Your task to perform on an android device: Find coffee shops on Maps Image 0: 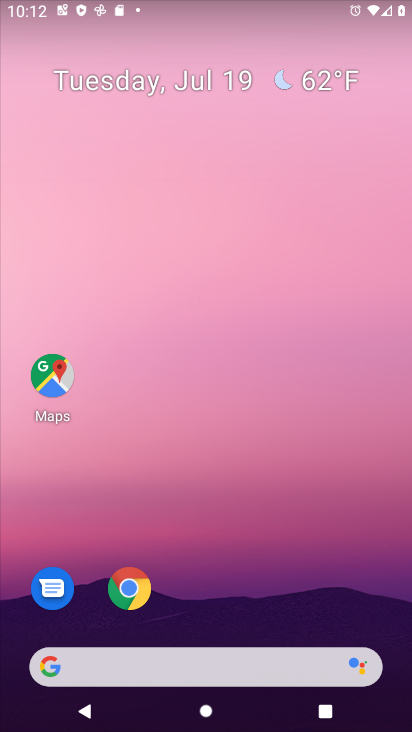
Step 0: drag from (260, 588) to (315, 35)
Your task to perform on an android device: Find coffee shops on Maps Image 1: 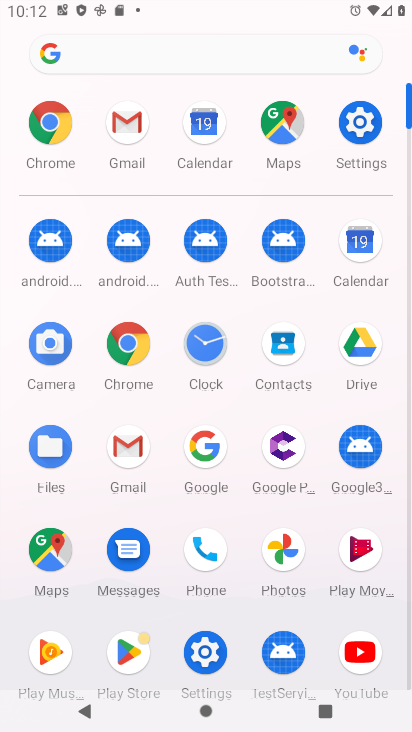
Step 1: click (50, 543)
Your task to perform on an android device: Find coffee shops on Maps Image 2: 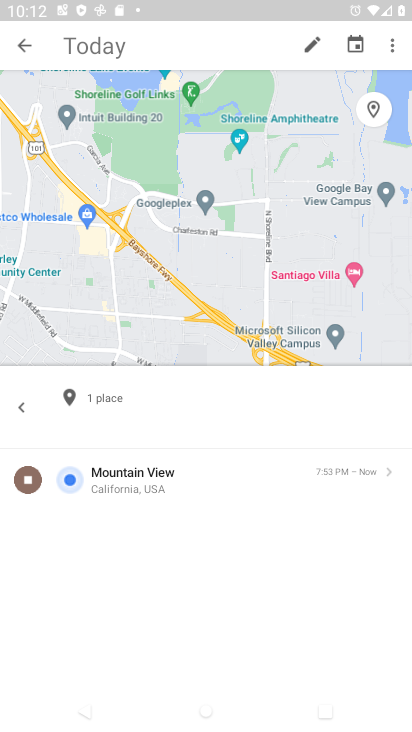
Step 2: click (25, 53)
Your task to perform on an android device: Find coffee shops on Maps Image 3: 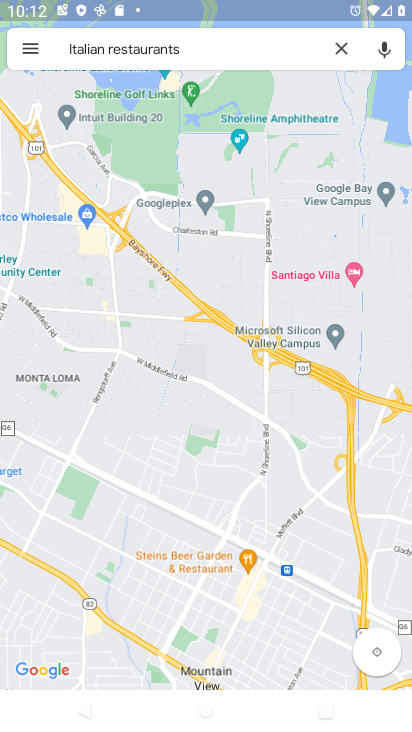
Step 3: click (337, 55)
Your task to perform on an android device: Find coffee shops on Maps Image 4: 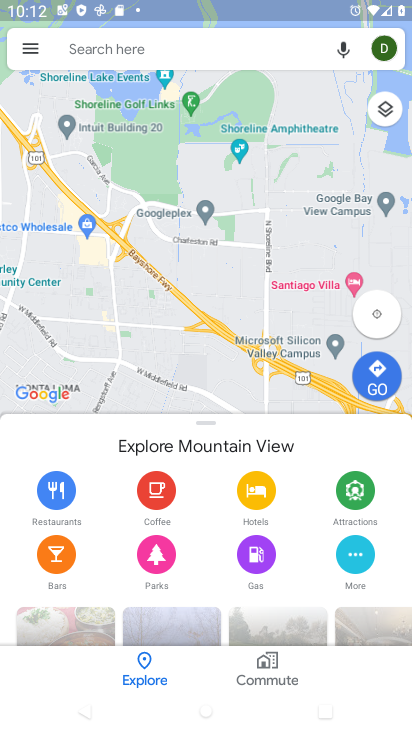
Step 4: click (218, 43)
Your task to perform on an android device: Find coffee shops on Maps Image 5: 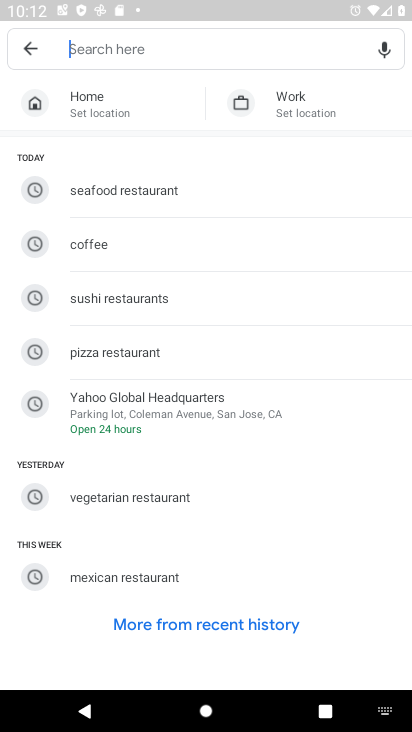
Step 5: click (106, 253)
Your task to perform on an android device: Find coffee shops on Maps Image 6: 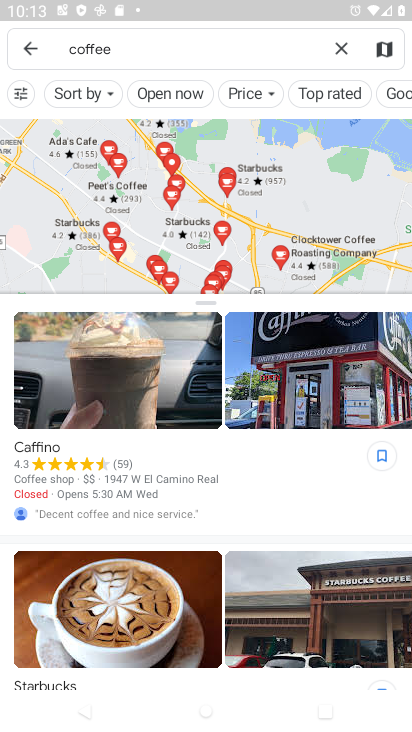
Step 6: task complete